Your task to perform on an android device: turn notification dots off Image 0: 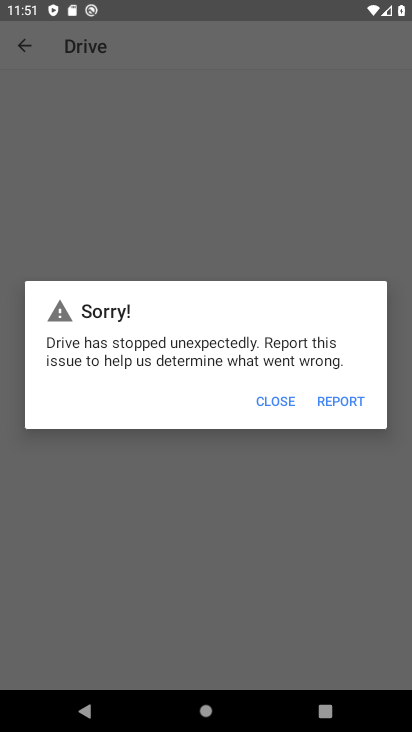
Step 0: press home button
Your task to perform on an android device: turn notification dots off Image 1: 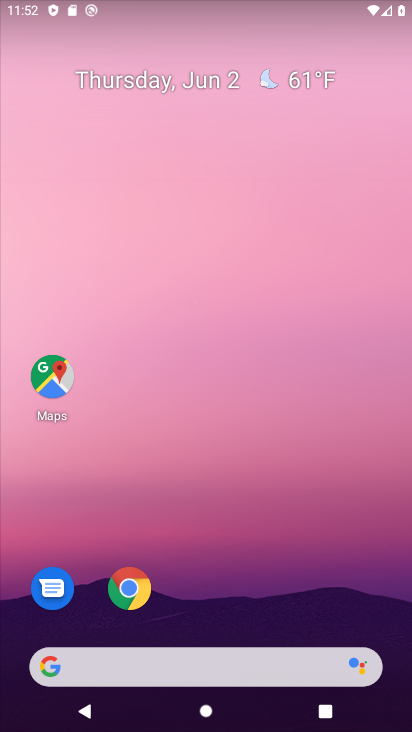
Step 1: drag from (243, 606) to (271, 120)
Your task to perform on an android device: turn notification dots off Image 2: 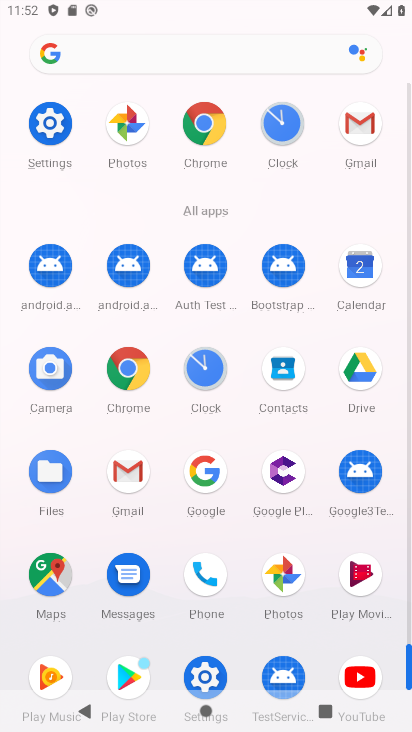
Step 2: click (206, 667)
Your task to perform on an android device: turn notification dots off Image 3: 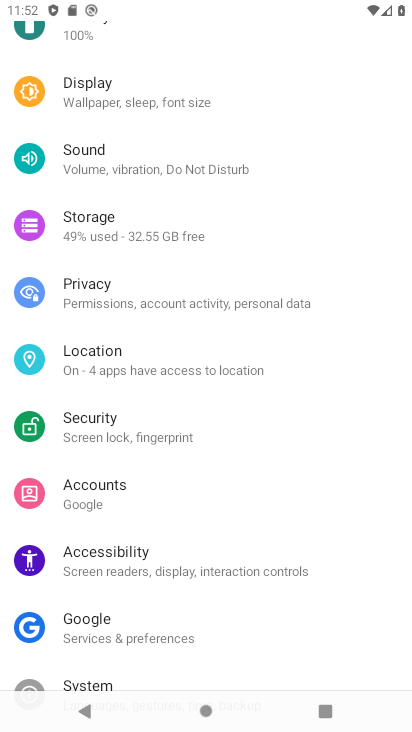
Step 3: drag from (218, 215) to (229, 589)
Your task to perform on an android device: turn notification dots off Image 4: 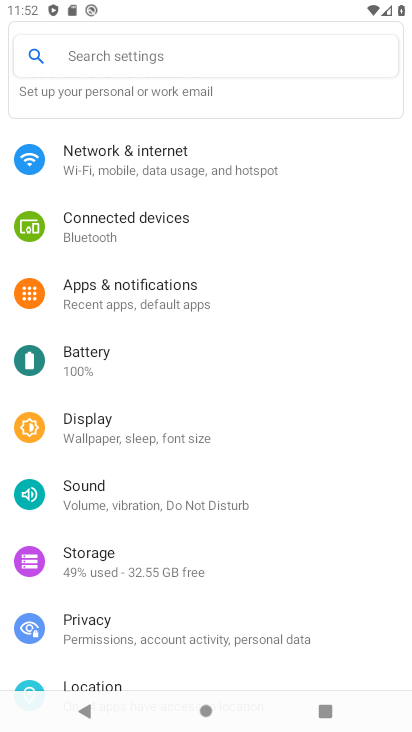
Step 4: click (191, 306)
Your task to perform on an android device: turn notification dots off Image 5: 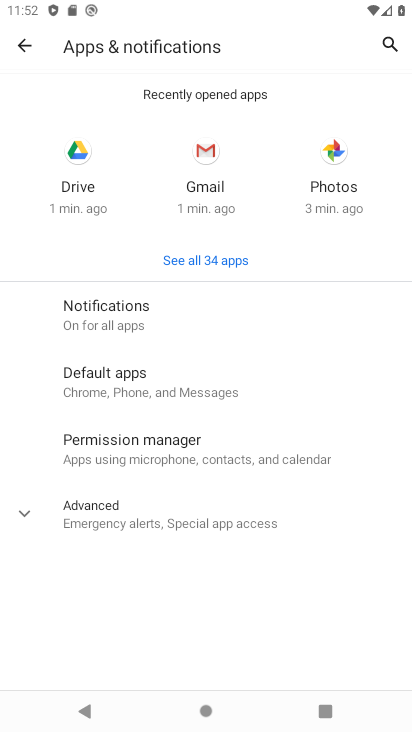
Step 5: click (166, 514)
Your task to perform on an android device: turn notification dots off Image 6: 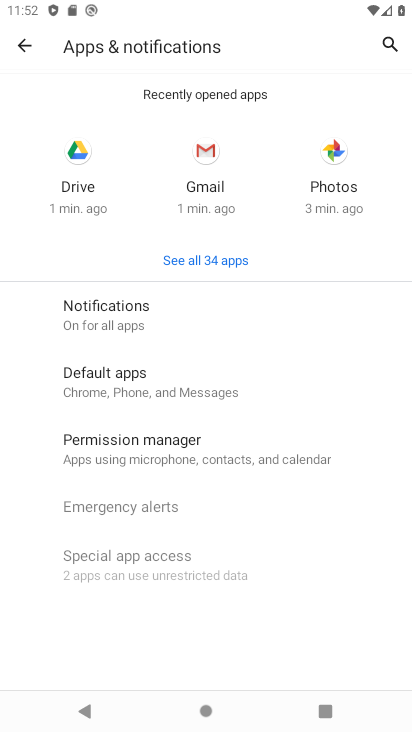
Step 6: drag from (166, 514) to (172, 290)
Your task to perform on an android device: turn notification dots off Image 7: 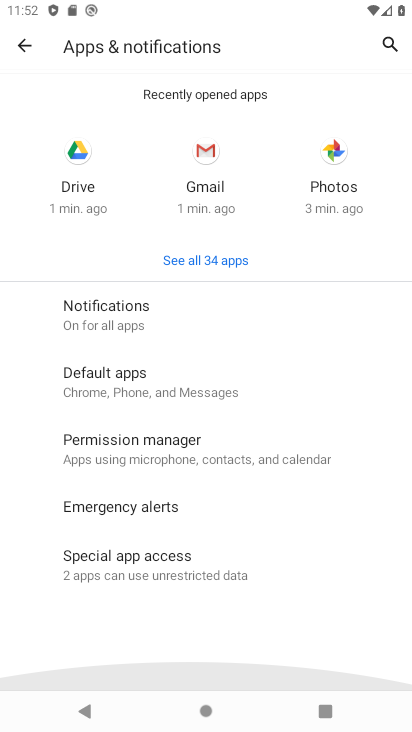
Step 7: click (172, 290)
Your task to perform on an android device: turn notification dots off Image 8: 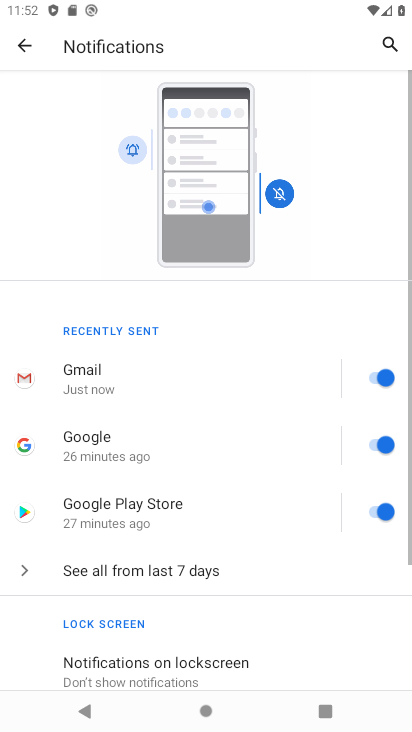
Step 8: drag from (236, 556) to (221, 240)
Your task to perform on an android device: turn notification dots off Image 9: 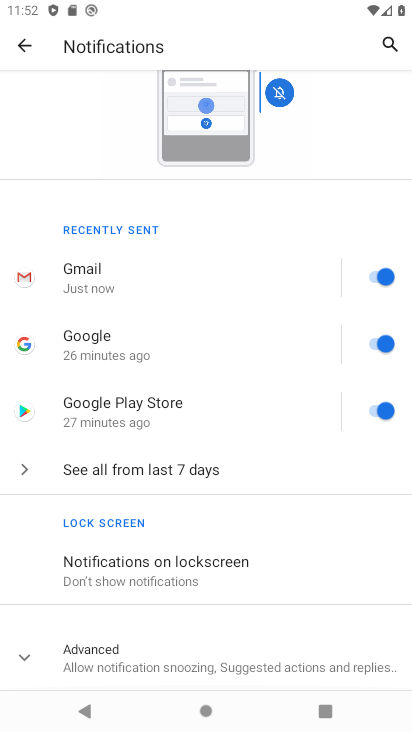
Step 9: click (200, 662)
Your task to perform on an android device: turn notification dots off Image 10: 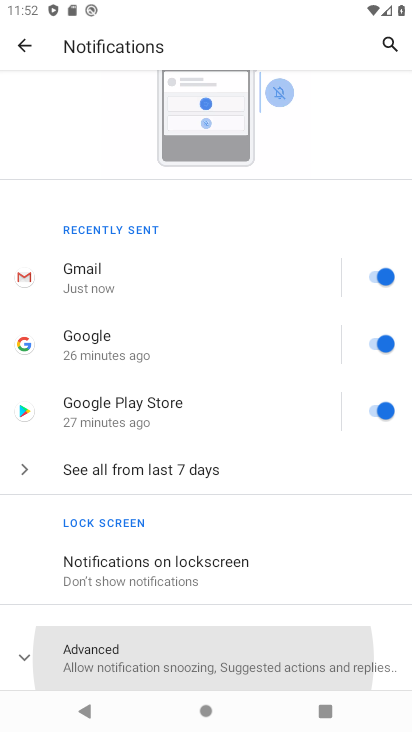
Step 10: drag from (203, 606) to (196, 324)
Your task to perform on an android device: turn notification dots off Image 11: 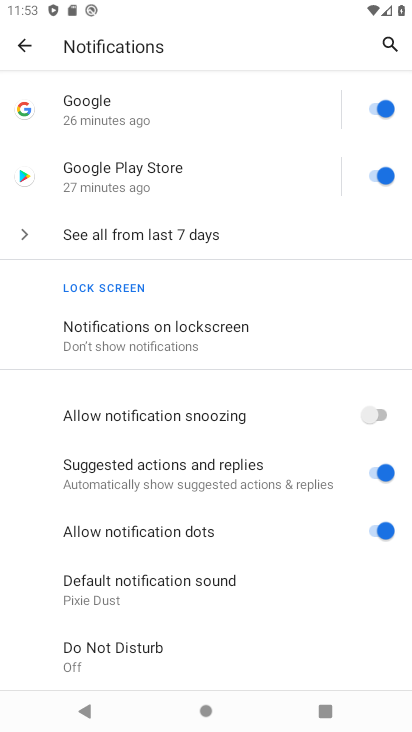
Step 11: click (379, 535)
Your task to perform on an android device: turn notification dots off Image 12: 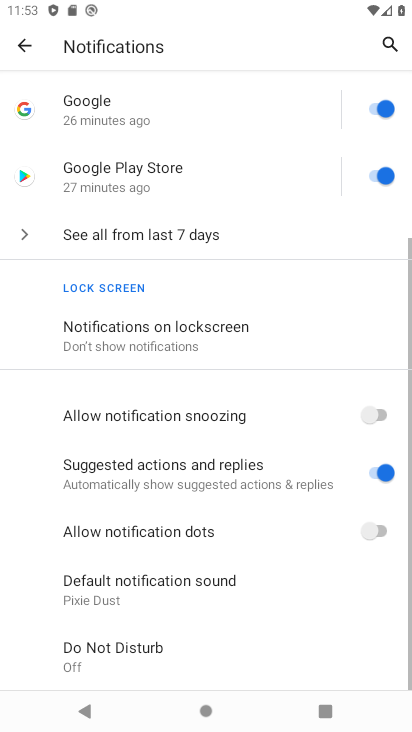
Step 12: task complete